Your task to perform on an android device: Play the last video I watched on Youtube Image 0: 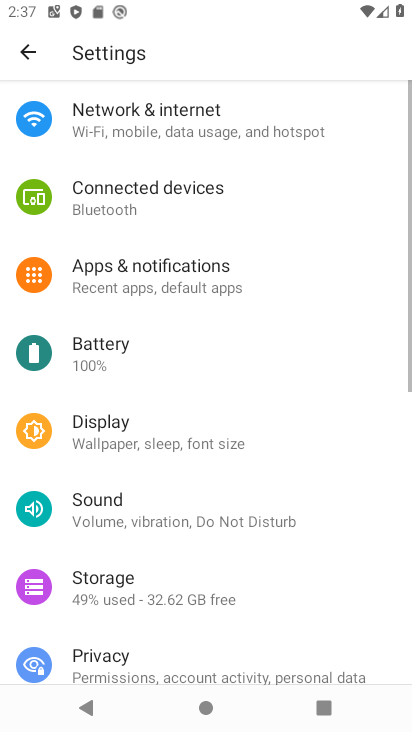
Step 0: press home button
Your task to perform on an android device: Play the last video I watched on Youtube Image 1: 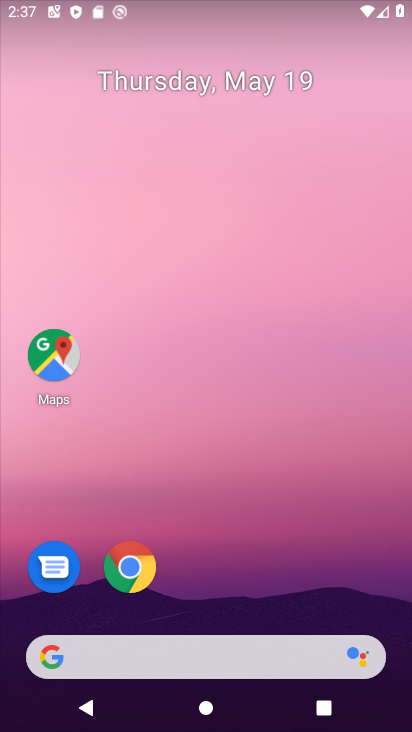
Step 1: drag from (232, 717) to (220, 175)
Your task to perform on an android device: Play the last video I watched on Youtube Image 2: 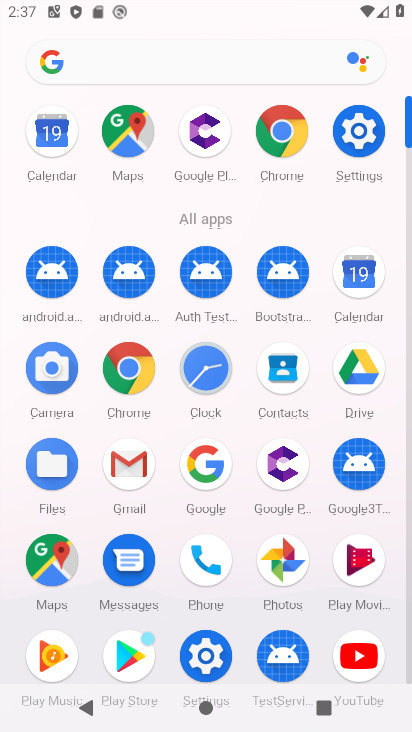
Step 2: click (350, 652)
Your task to perform on an android device: Play the last video I watched on Youtube Image 3: 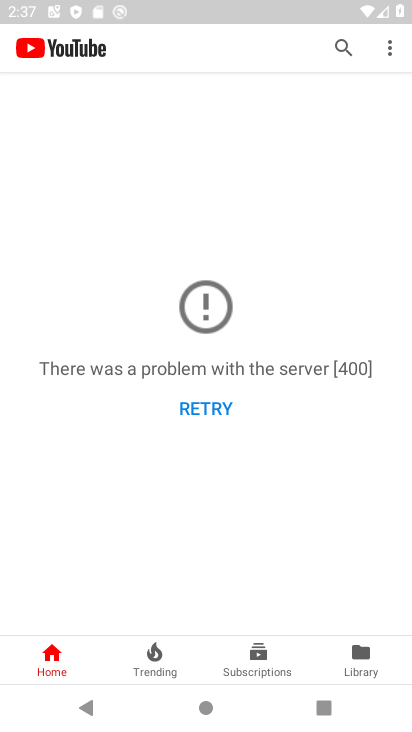
Step 3: click (209, 407)
Your task to perform on an android device: Play the last video I watched on Youtube Image 4: 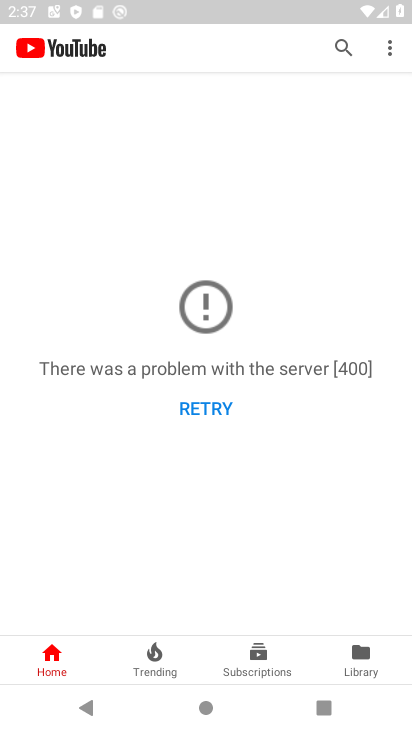
Step 4: task complete